Your task to perform on an android device: turn on the 12-hour format for clock Image 0: 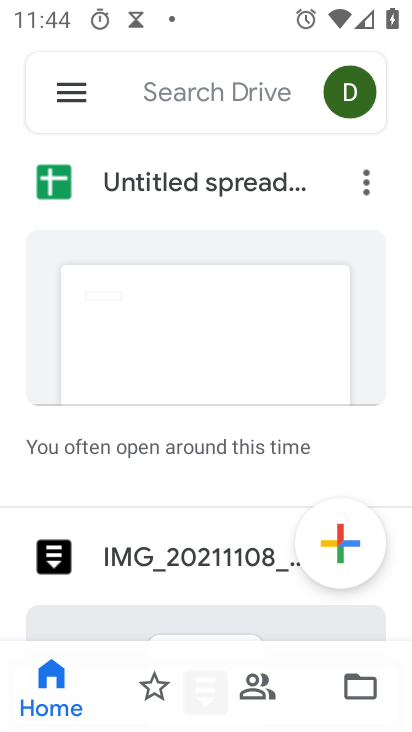
Step 0: press home button
Your task to perform on an android device: turn on the 12-hour format for clock Image 1: 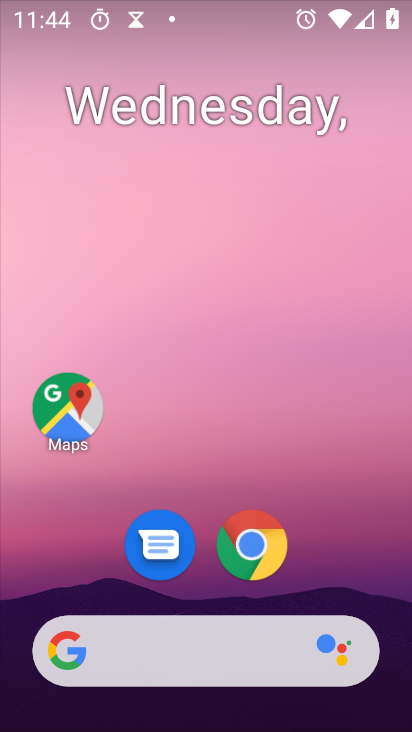
Step 1: drag from (202, 601) to (342, 44)
Your task to perform on an android device: turn on the 12-hour format for clock Image 2: 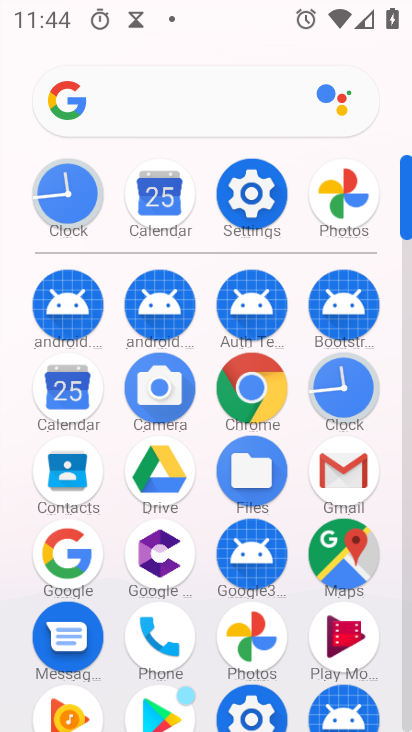
Step 2: click (346, 395)
Your task to perform on an android device: turn on the 12-hour format for clock Image 3: 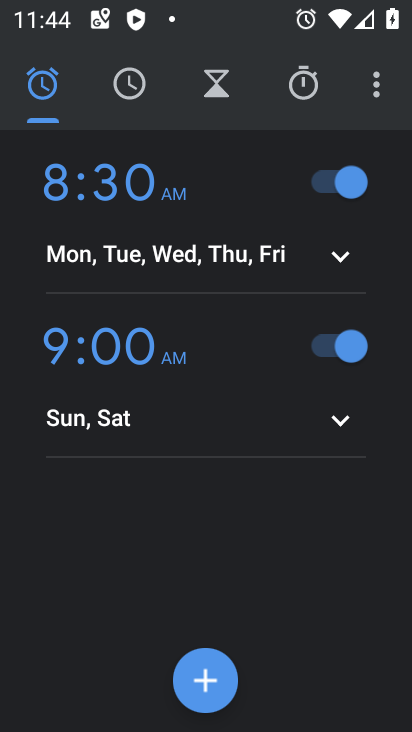
Step 3: click (375, 86)
Your task to perform on an android device: turn on the 12-hour format for clock Image 4: 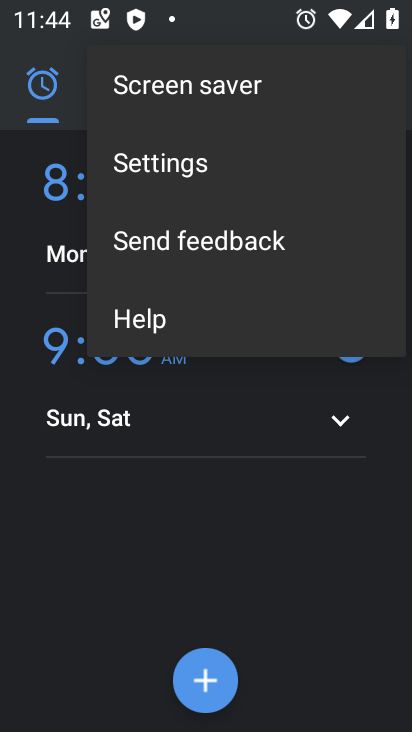
Step 4: click (162, 149)
Your task to perform on an android device: turn on the 12-hour format for clock Image 5: 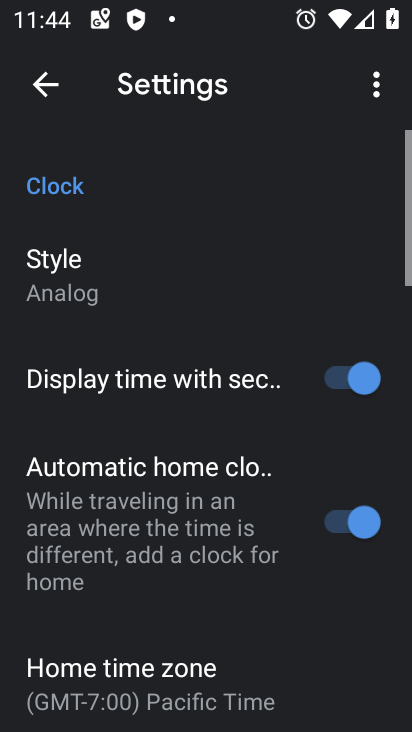
Step 5: drag from (222, 629) to (340, 226)
Your task to perform on an android device: turn on the 12-hour format for clock Image 6: 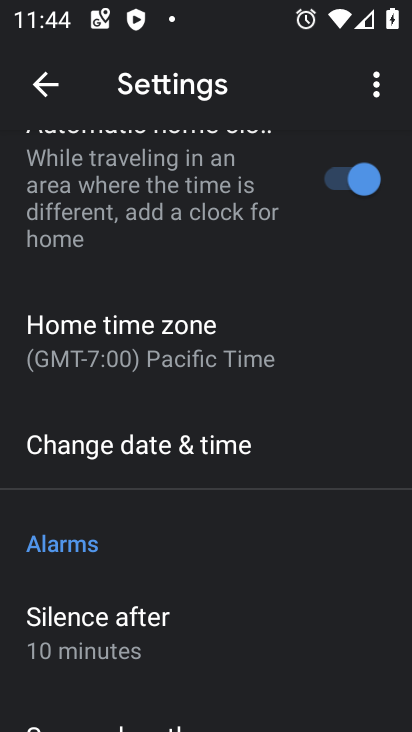
Step 6: drag from (251, 600) to (358, 106)
Your task to perform on an android device: turn on the 12-hour format for clock Image 7: 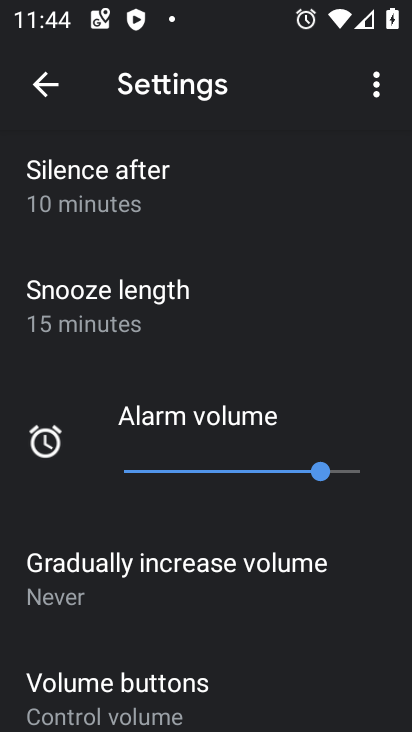
Step 7: drag from (307, 162) to (267, 522)
Your task to perform on an android device: turn on the 12-hour format for clock Image 8: 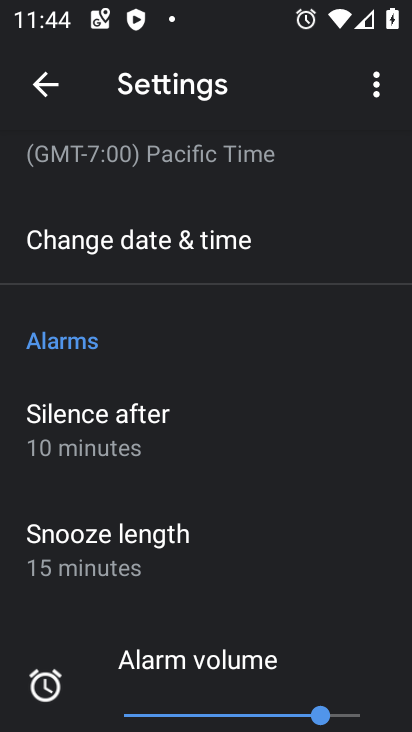
Step 8: click (179, 240)
Your task to perform on an android device: turn on the 12-hour format for clock Image 9: 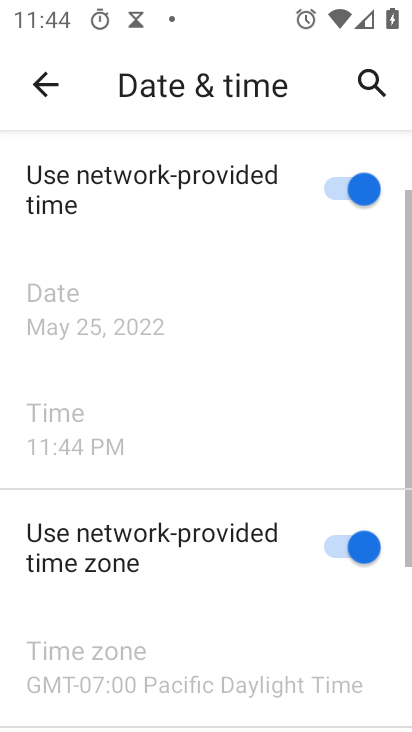
Step 9: task complete